Your task to perform on an android device: Show me popular games on the Play Store Image 0: 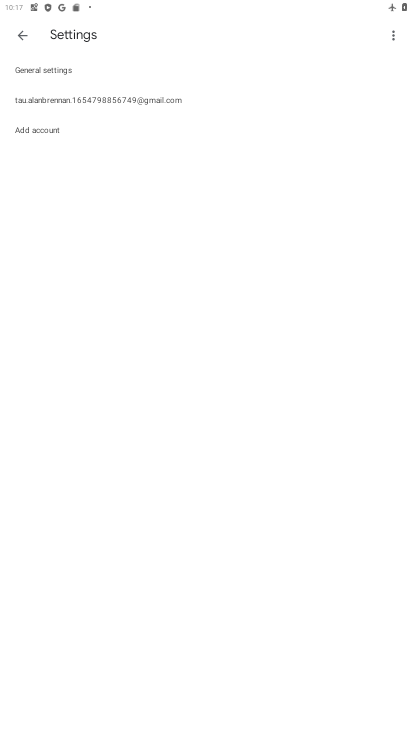
Step 0: press home button
Your task to perform on an android device: Show me popular games on the Play Store Image 1: 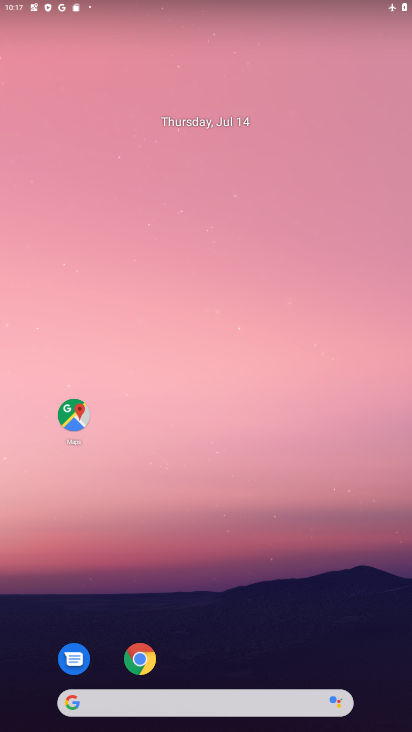
Step 1: drag from (264, 568) to (249, 233)
Your task to perform on an android device: Show me popular games on the Play Store Image 2: 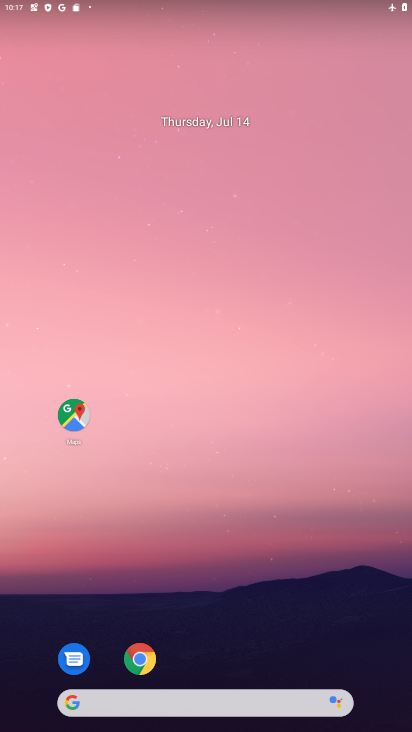
Step 2: drag from (200, 624) to (216, 421)
Your task to perform on an android device: Show me popular games on the Play Store Image 3: 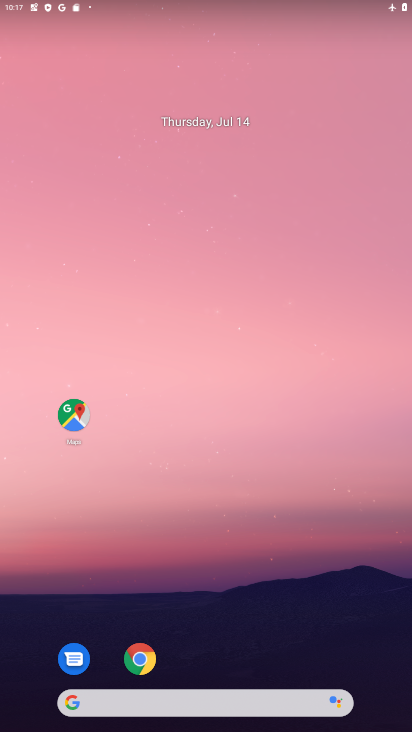
Step 3: drag from (252, 605) to (268, 100)
Your task to perform on an android device: Show me popular games on the Play Store Image 4: 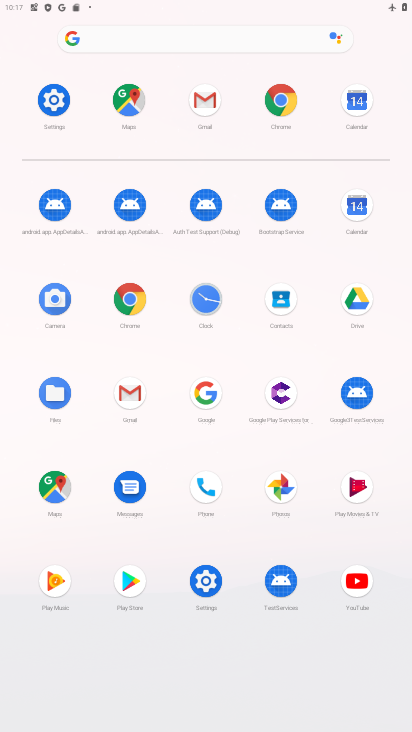
Step 4: click (131, 580)
Your task to perform on an android device: Show me popular games on the Play Store Image 5: 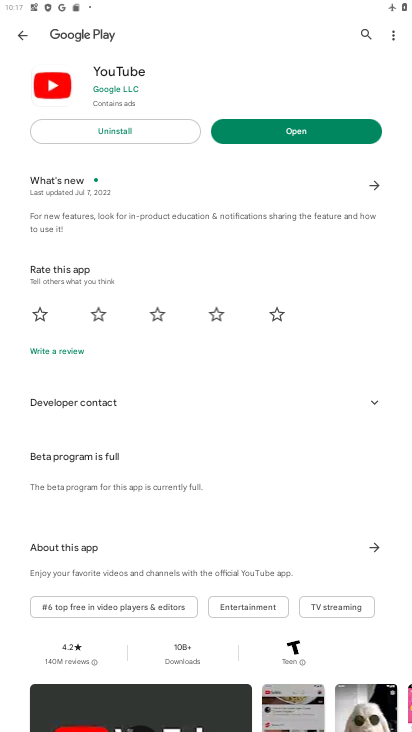
Step 5: click (28, 38)
Your task to perform on an android device: Show me popular games on the Play Store Image 6: 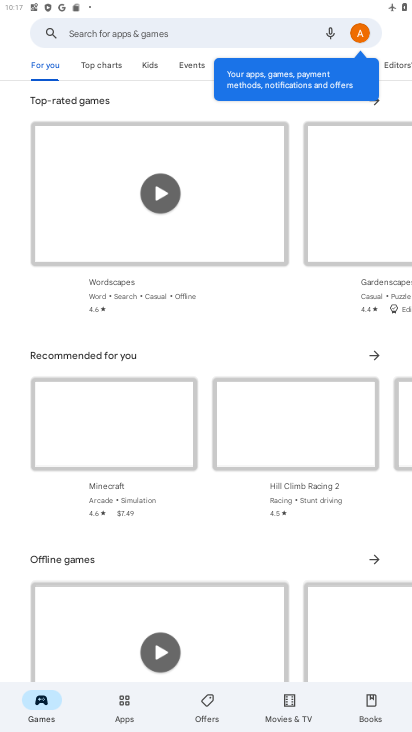
Step 6: task complete